Your task to perform on an android device: Open settings Image 0: 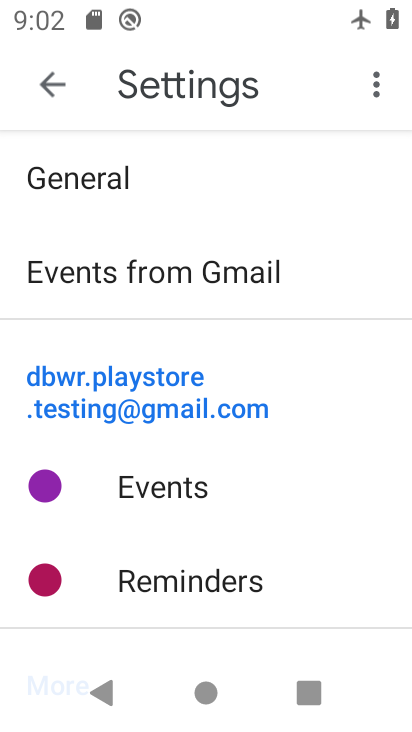
Step 0: press home button
Your task to perform on an android device: Open settings Image 1: 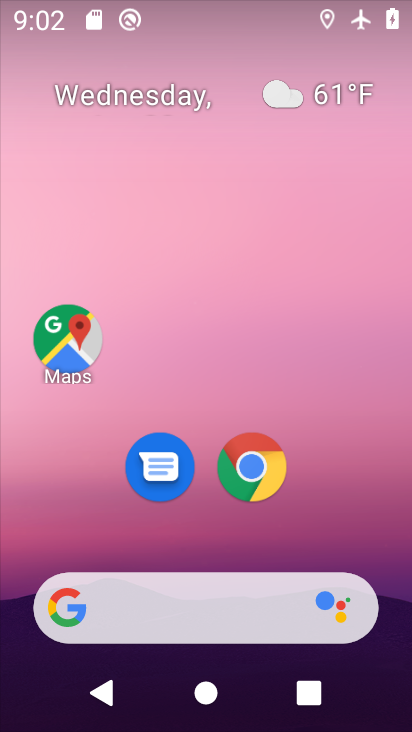
Step 1: drag from (327, 512) to (279, 133)
Your task to perform on an android device: Open settings Image 2: 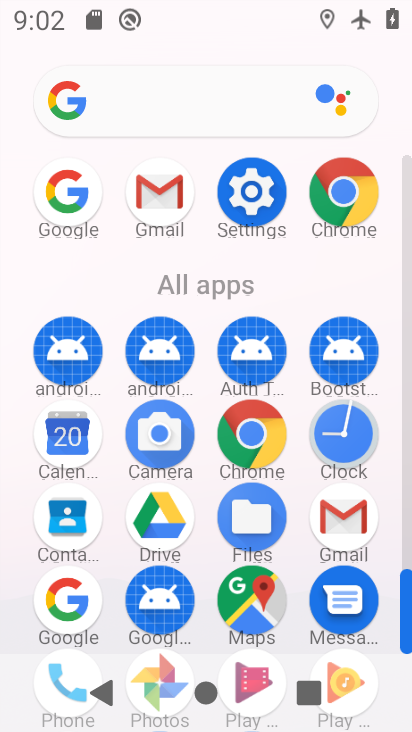
Step 2: click (264, 192)
Your task to perform on an android device: Open settings Image 3: 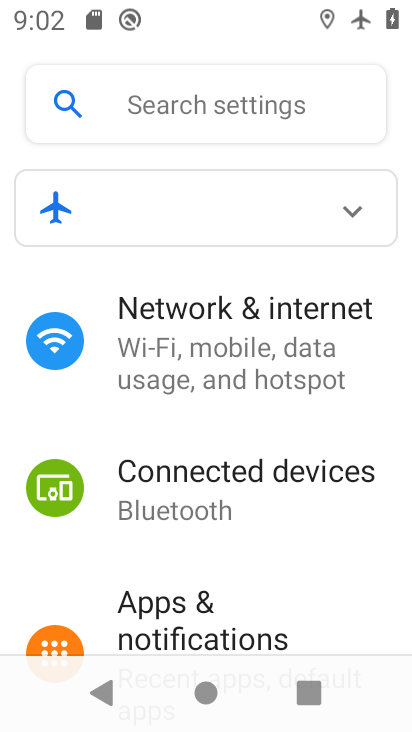
Step 3: task complete